Your task to perform on an android device: Search for razer blackwidow on walmart.com, select the first entry, and add it to the cart. Image 0: 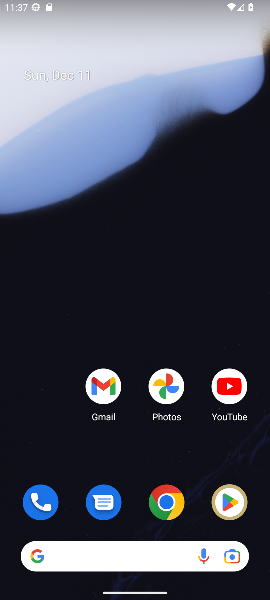
Step 0: click (154, 544)
Your task to perform on an android device: Search for razer blackwidow on walmart.com, select the first entry, and add it to the cart. Image 1: 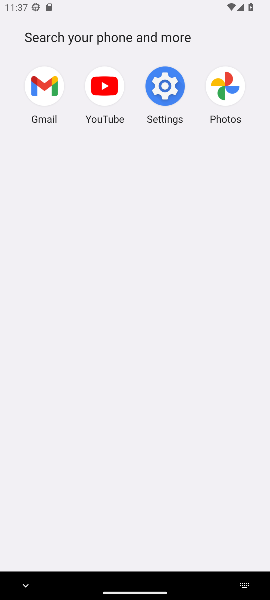
Step 1: press home button
Your task to perform on an android device: Search for razer blackwidow on walmart.com, select the first entry, and add it to the cart. Image 2: 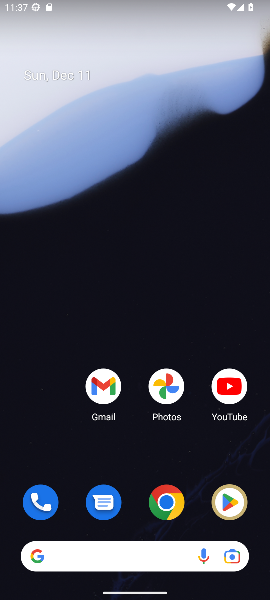
Step 2: click (159, 558)
Your task to perform on an android device: Search for razer blackwidow on walmart.com, select the first entry, and add it to the cart. Image 3: 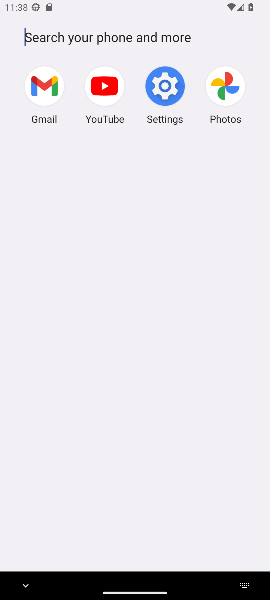
Step 3: press home button
Your task to perform on an android device: Search for razer blackwidow on walmart.com, select the first entry, and add it to the cart. Image 4: 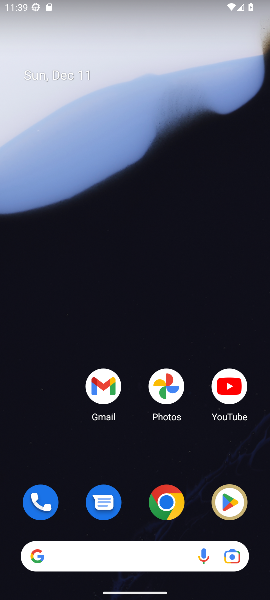
Step 4: click (121, 565)
Your task to perform on an android device: Search for razer blackwidow on walmart.com, select the first entry, and add it to the cart. Image 5: 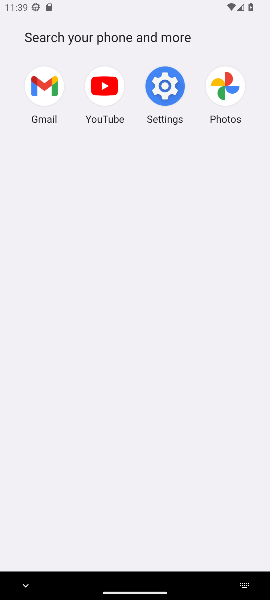
Step 5: press home button
Your task to perform on an android device: Search for razer blackwidow on walmart.com, select the first entry, and add it to the cart. Image 6: 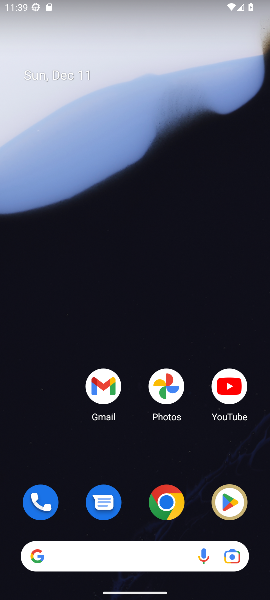
Step 6: click (174, 514)
Your task to perform on an android device: Search for razer blackwidow on walmart.com, select the first entry, and add it to the cart. Image 7: 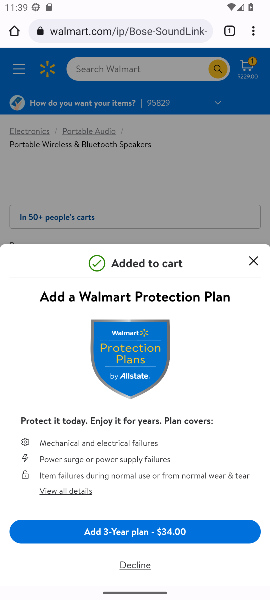
Step 7: click (120, 565)
Your task to perform on an android device: Search for razer blackwidow on walmart.com, select the first entry, and add it to the cart. Image 8: 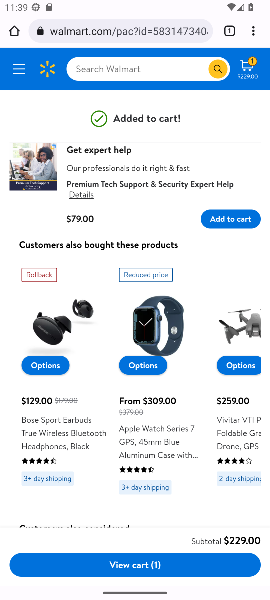
Step 8: click (140, 61)
Your task to perform on an android device: Search for razer blackwidow on walmart.com, select the first entry, and add it to the cart. Image 9: 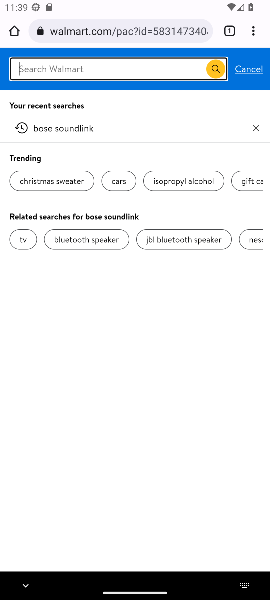
Step 9: type "raze blackwindow"
Your task to perform on an android device: Search for razer blackwidow on walmart.com, select the first entry, and add it to the cart. Image 10: 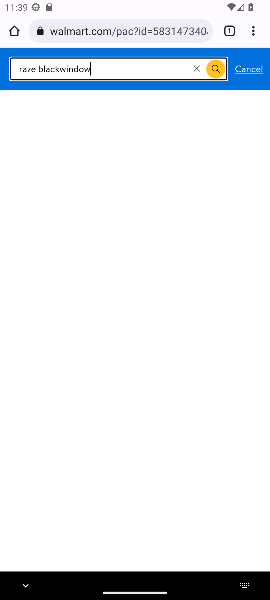
Step 10: click (217, 64)
Your task to perform on an android device: Search for razer blackwidow on walmart.com, select the first entry, and add it to the cart. Image 11: 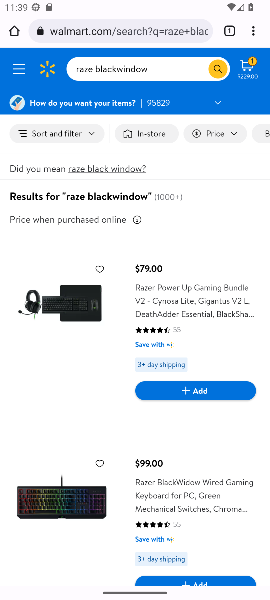
Step 11: click (209, 387)
Your task to perform on an android device: Search for razer blackwidow on walmart.com, select the first entry, and add it to the cart. Image 12: 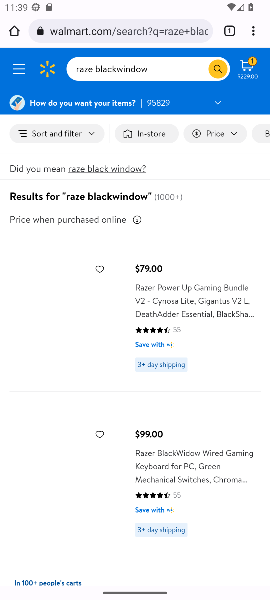
Step 12: task complete